Your task to perform on an android device: turn on notifications settings in the gmail app Image 0: 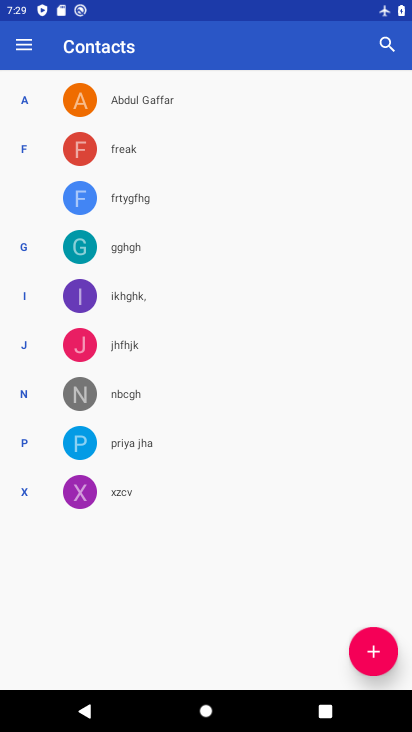
Step 0: press home button
Your task to perform on an android device: turn on notifications settings in the gmail app Image 1: 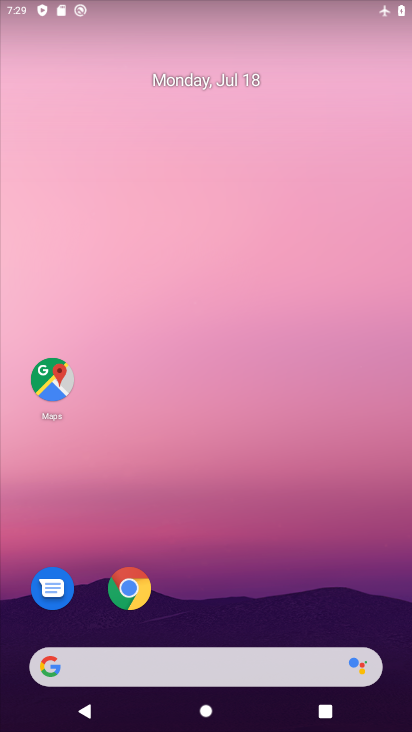
Step 1: drag from (180, 575) to (188, 287)
Your task to perform on an android device: turn on notifications settings in the gmail app Image 2: 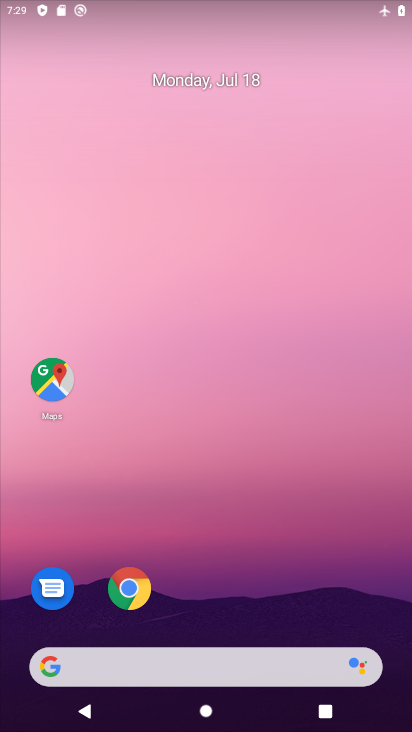
Step 2: drag from (197, 635) to (233, 317)
Your task to perform on an android device: turn on notifications settings in the gmail app Image 3: 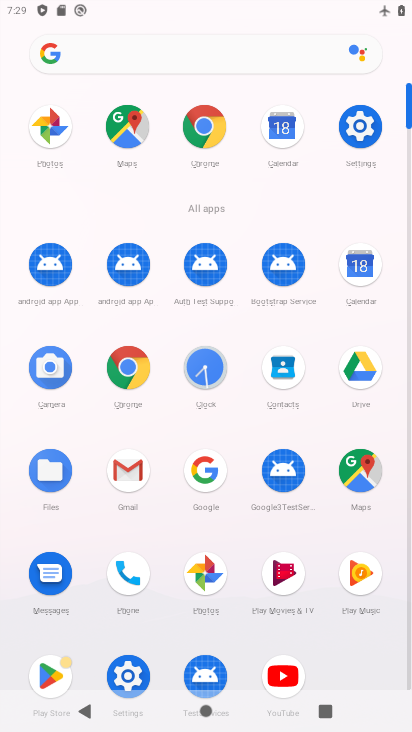
Step 3: click (129, 476)
Your task to perform on an android device: turn on notifications settings in the gmail app Image 4: 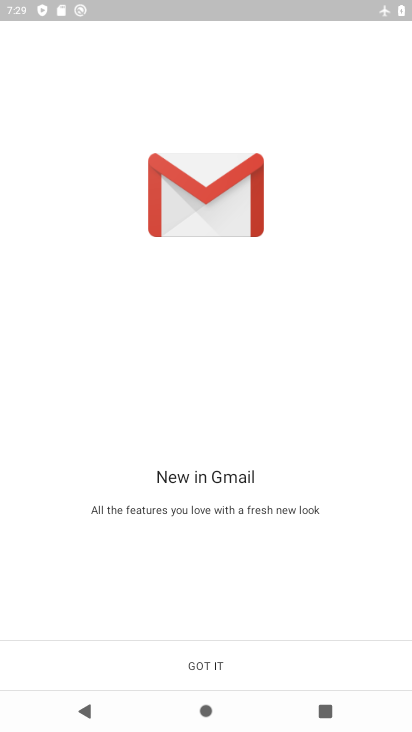
Step 4: click (214, 663)
Your task to perform on an android device: turn on notifications settings in the gmail app Image 5: 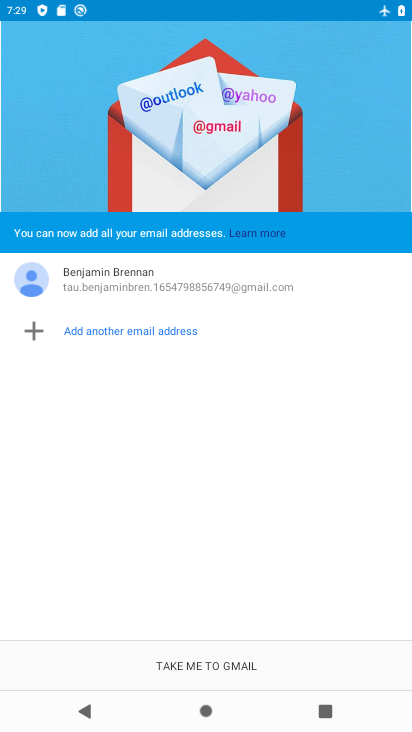
Step 5: click (217, 668)
Your task to perform on an android device: turn on notifications settings in the gmail app Image 6: 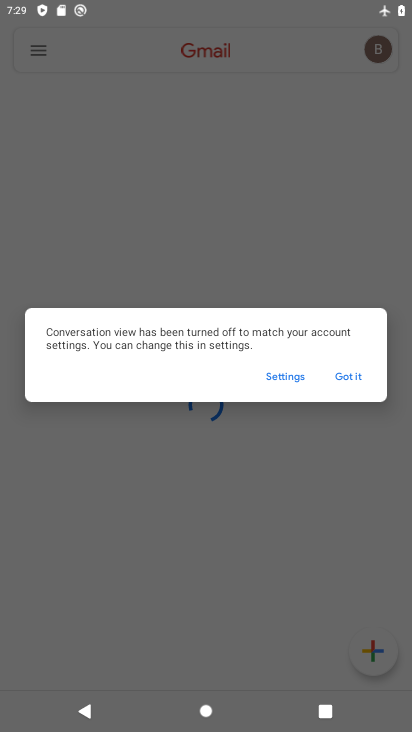
Step 6: click (281, 373)
Your task to perform on an android device: turn on notifications settings in the gmail app Image 7: 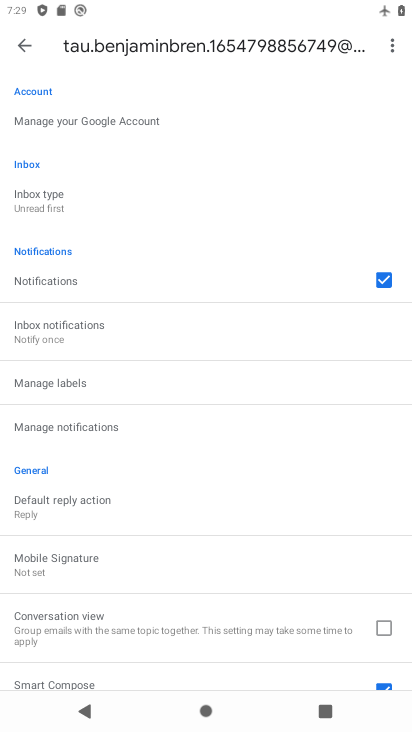
Step 7: click (19, 49)
Your task to perform on an android device: turn on notifications settings in the gmail app Image 8: 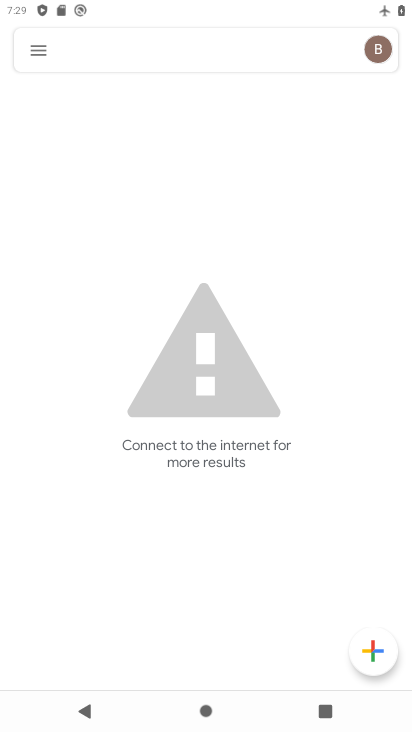
Step 8: click (40, 54)
Your task to perform on an android device: turn on notifications settings in the gmail app Image 9: 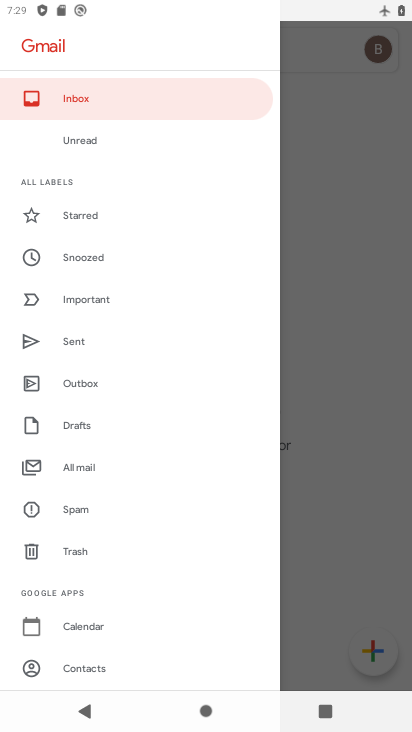
Step 9: drag from (85, 588) to (147, 159)
Your task to perform on an android device: turn on notifications settings in the gmail app Image 10: 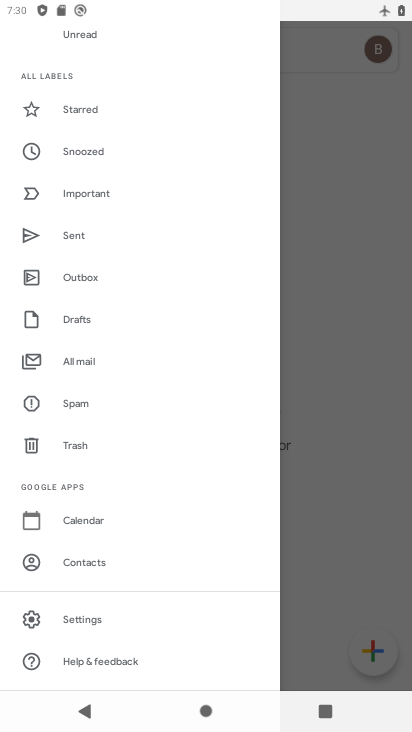
Step 10: click (84, 623)
Your task to perform on an android device: turn on notifications settings in the gmail app Image 11: 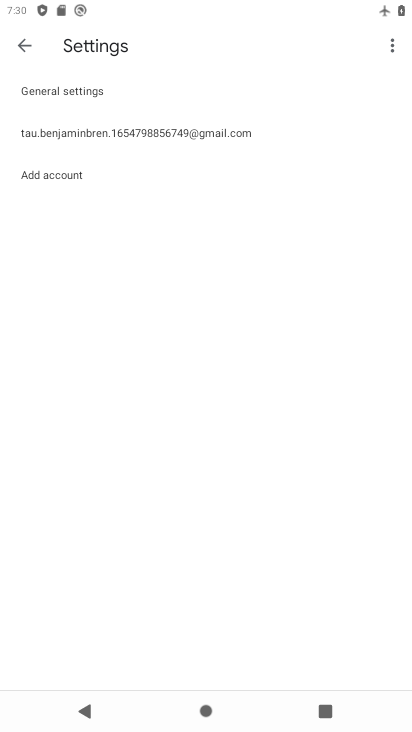
Step 11: click (59, 89)
Your task to perform on an android device: turn on notifications settings in the gmail app Image 12: 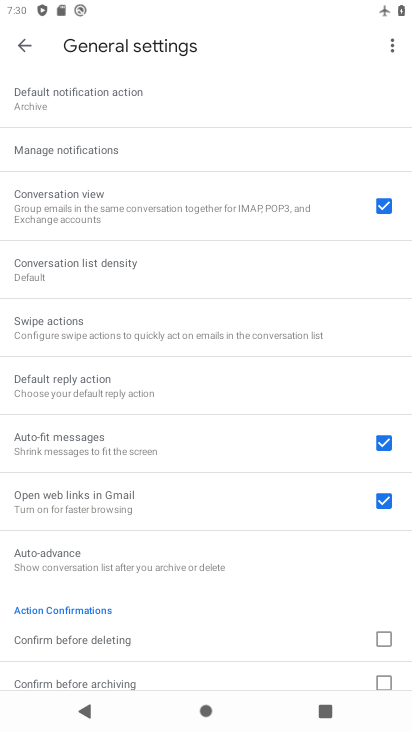
Step 12: click (92, 142)
Your task to perform on an android device: turn on notifications settings in the gmail app Image 13: 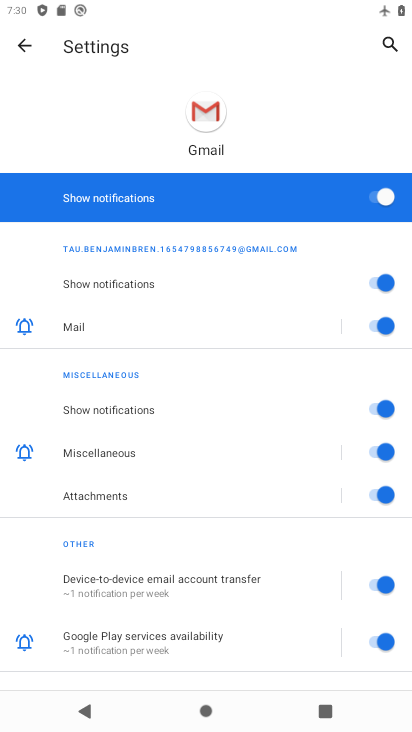
Step 13: task complete